Your task to perform on an android device: Open ESPN.com Image 0: 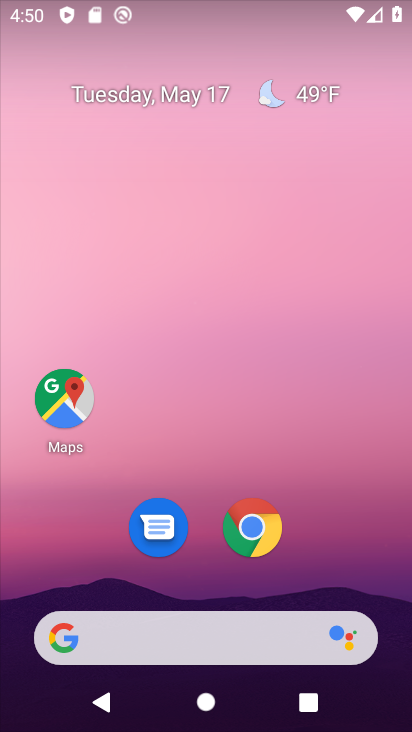
Step 0: drag from (307, 558) to (222, 14)
Your task to perform on an android device: Open ESPN.com Image 1: 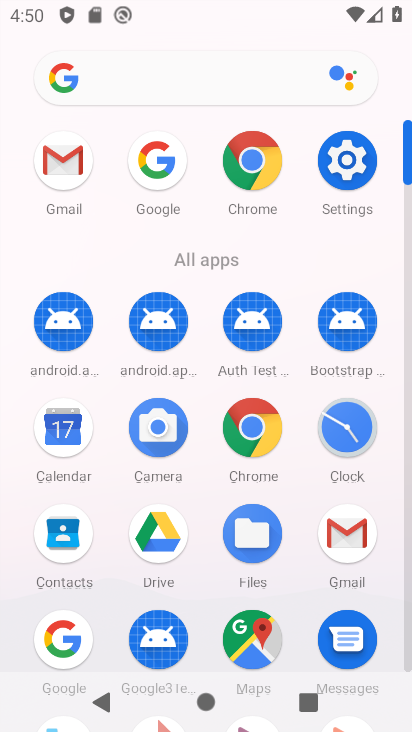
Step 1: drag from (1, 556) to (7, 219)
Your task to perform on an android device: Open ESPN.com Image 2: 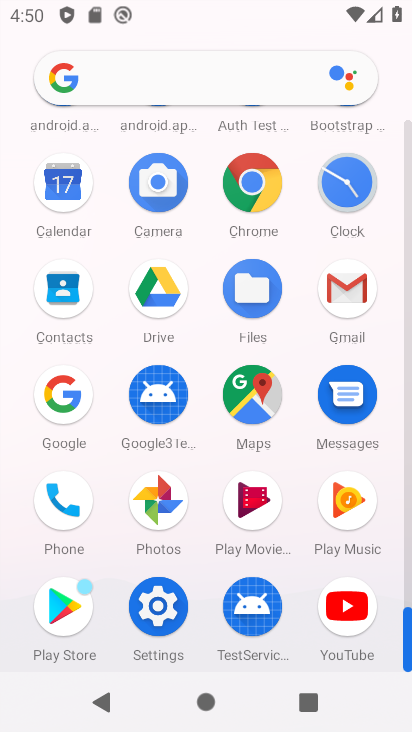
Step 2: click (253, 250)
Your task to perform on an android device: Open ESPN.com Image 3: 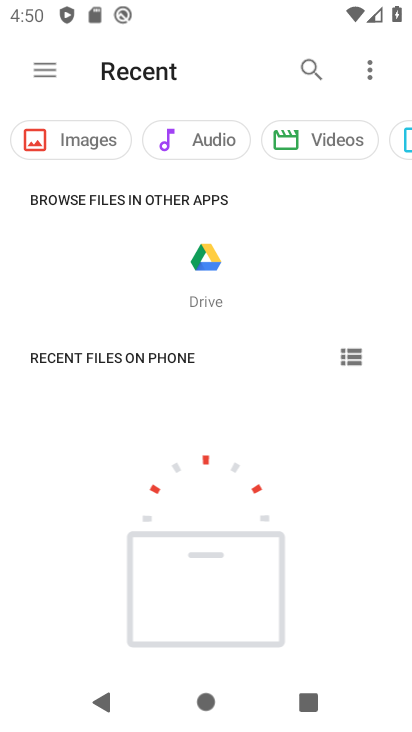
Step 3: press back button
Your task to perform on an android device: Open ESPN.com Image 4: 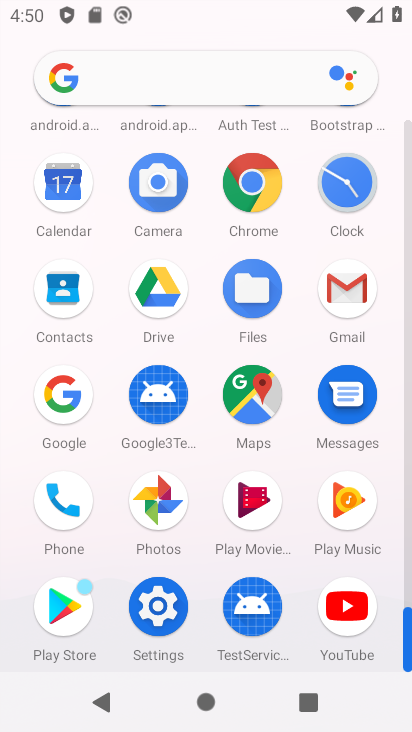
Step 4: click (251, 170)
Your task to perform on an android device: Open ESPN.com Image 5: 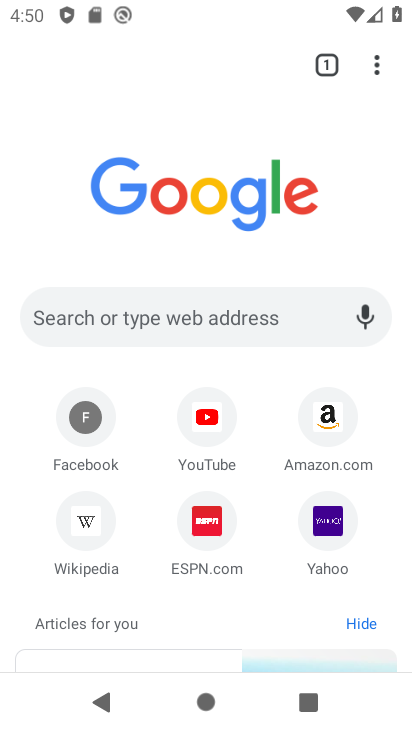
Step 5: click (176, 319)
Your task to perform on an android device: Open ESPN.com Image 6: 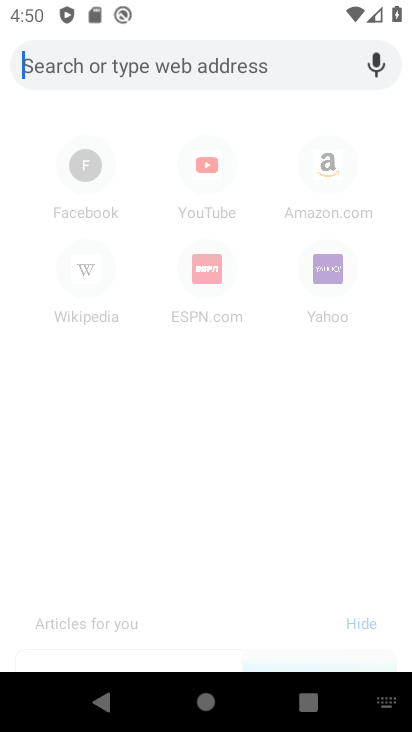
Step 6: click (195, 272)
Your task to perform on an android device: Open ESPN.com Image 7: 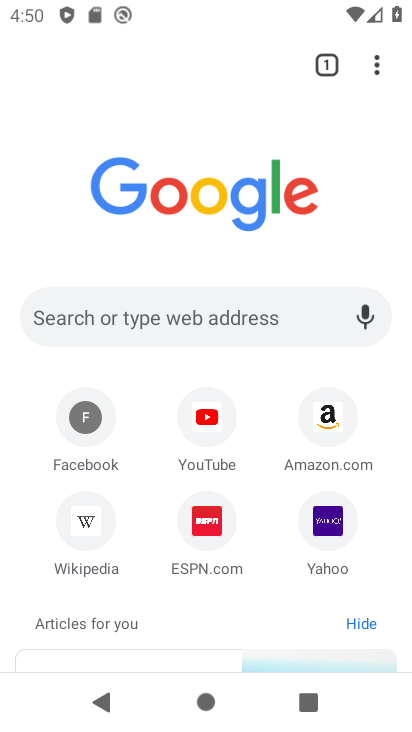
Step 7: click (199, 508)
Your task to perform on an android device: Open ESPN.com Image 8: 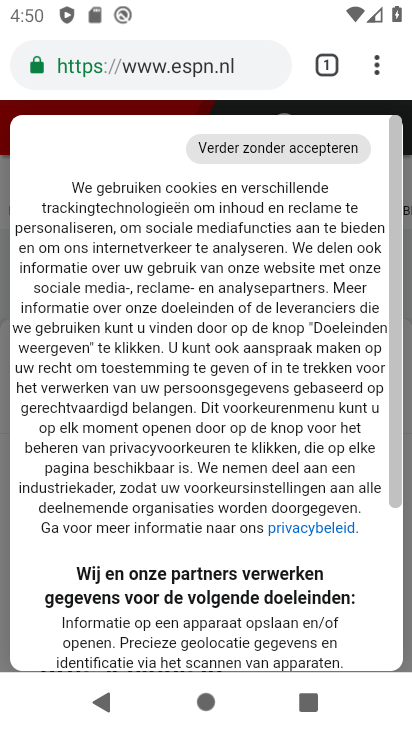
Step 8: drag from (206, 584) to (206, 201)
Your task to perform on an android device: Open ESPN.com Image 9: 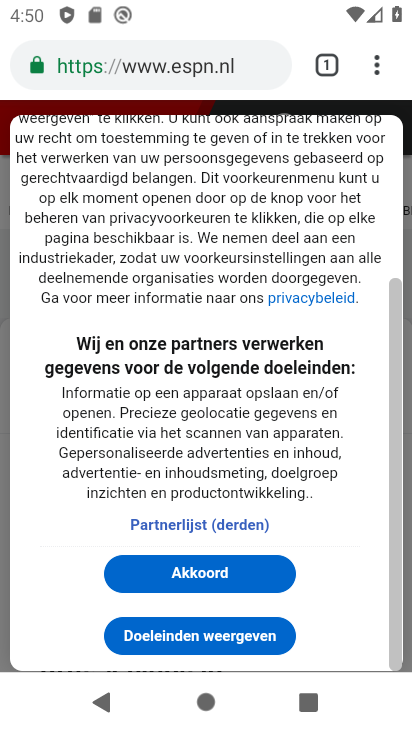
Step 9: click (229, 572)
Your task to perform on an android device: Open ESPN.com Image 10: 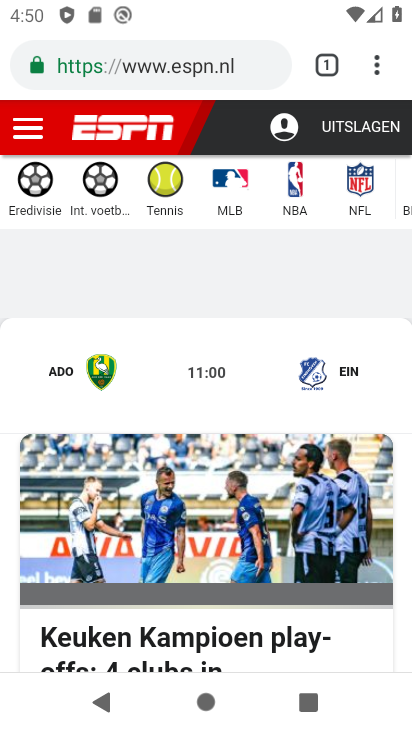
Step 10: task complete